Your task to perform on an android device: turn on the 24-hour format for clock Image 0: 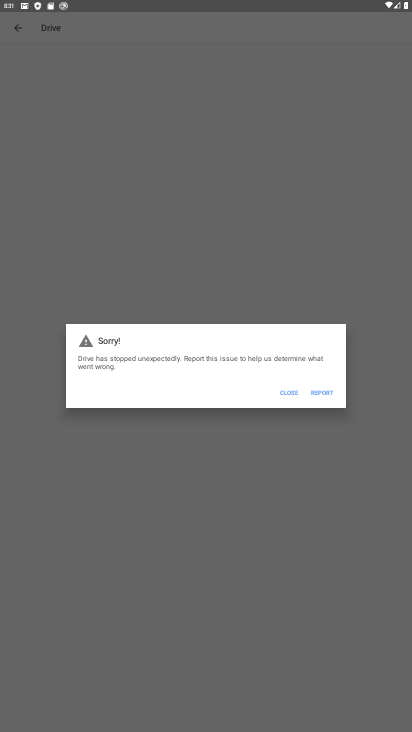
Step 0: press home button
Your task to perform on an android device: turn on the 24-hour format for clock Image 1: 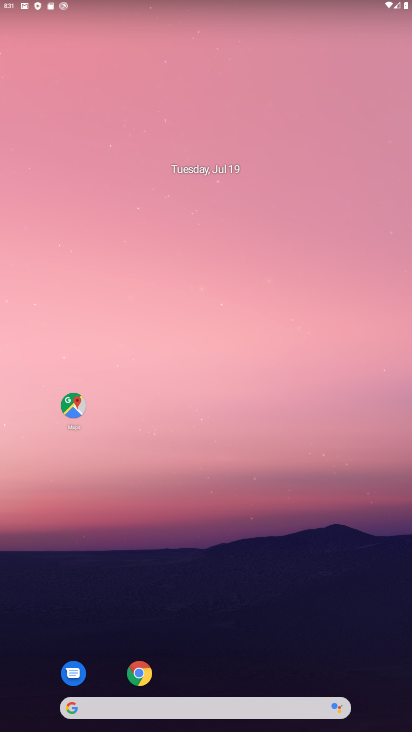
Step 1: drag from (169, 421) to (179, 112)
Your task to perform on an android device: turn on the 24-hour format for clock Image 2: 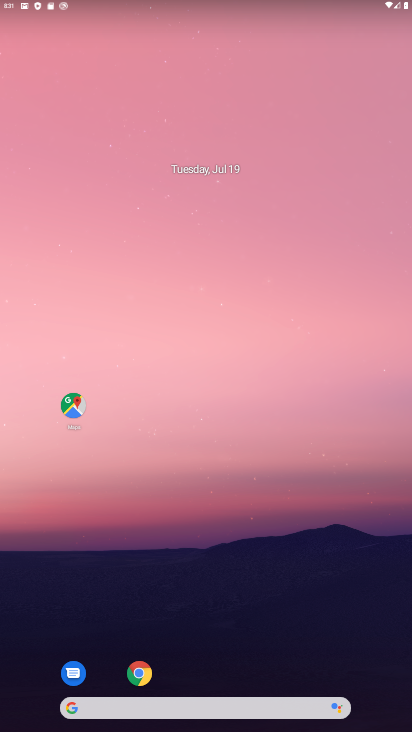
Step 2: drag from (243, 680) to (297, 32)
Your task to perform on an android device: turn on the 24-hour format for clock Image 3: 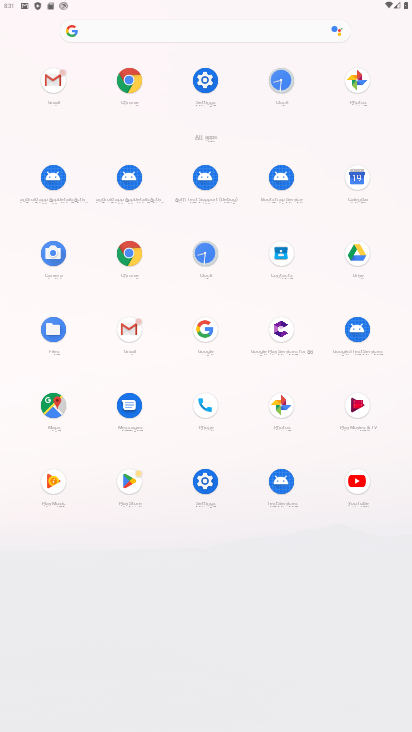
Step 3: click (209, 512)
Your task to perform on an android device: turn on the 24-hour format for clock Image 4: 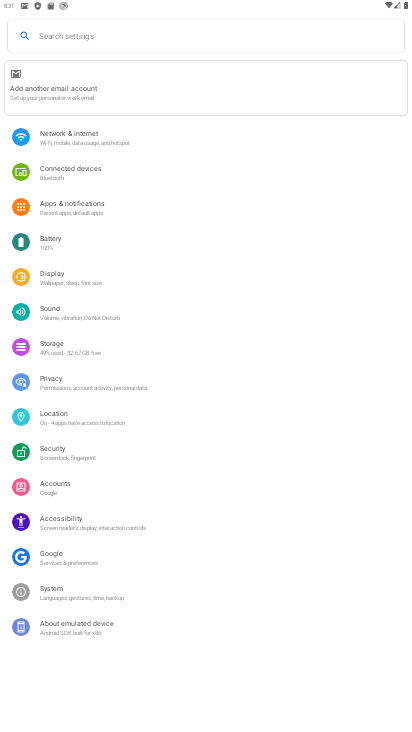
Step 4: click (80, 594)
Your task to perform on an android device: turn on the 24-hour format for clock Image 5: 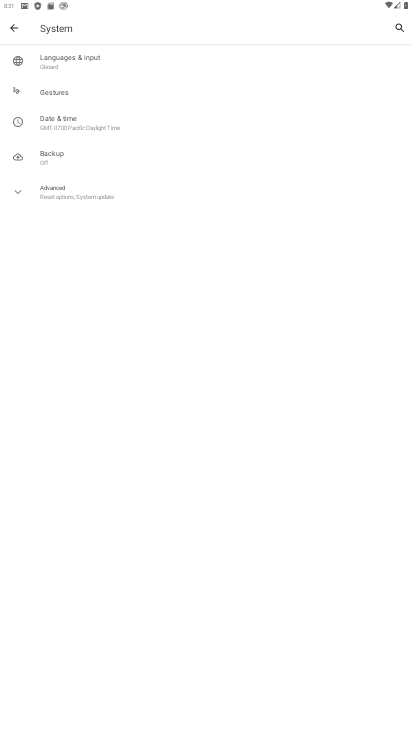
Step 5: click (80, 119)
Your task to perform on an android device: turn on the 24-hour format for clock Image 6: 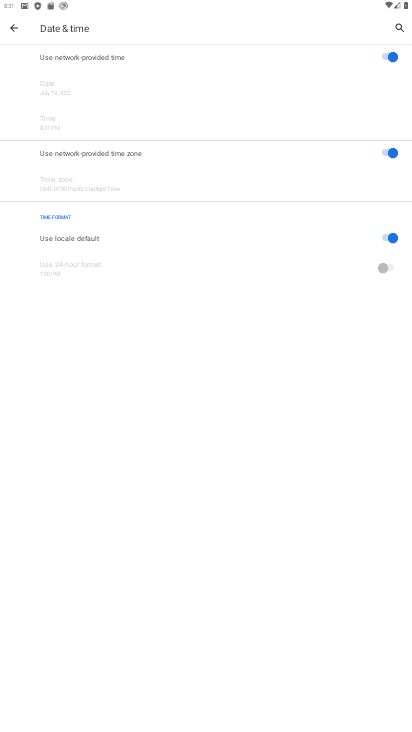
Step 6: click (381, 235)
Your task to perform on an android device: turn on the 24-hour format for clock Image 7: 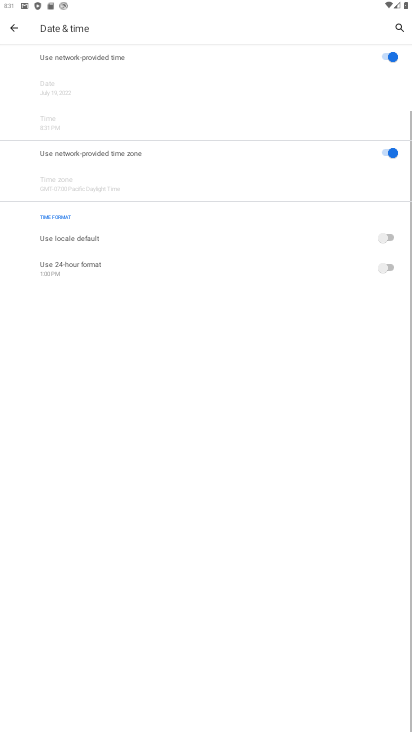
Step 7: click (395, 264)
Your task to perform on an android device: turn on the 24-hour format for clock Image 8: 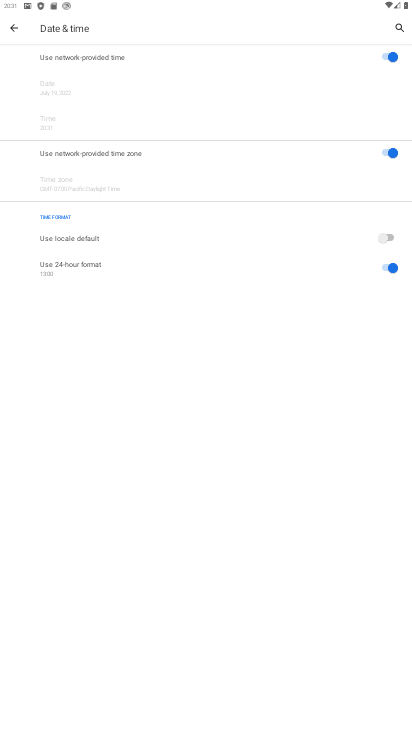
Step 8: task complete